Your task to perform on an android device: Open calendar and show me the fourth week of next month Image 0: 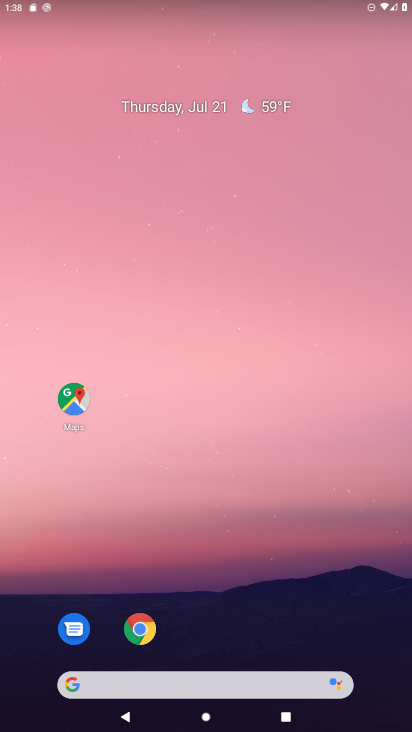
Step 0: drag from (384, 671) to (353, 40)
Your task to perform on an android device: Open calendar and show me the fourth week of next month Image 1: 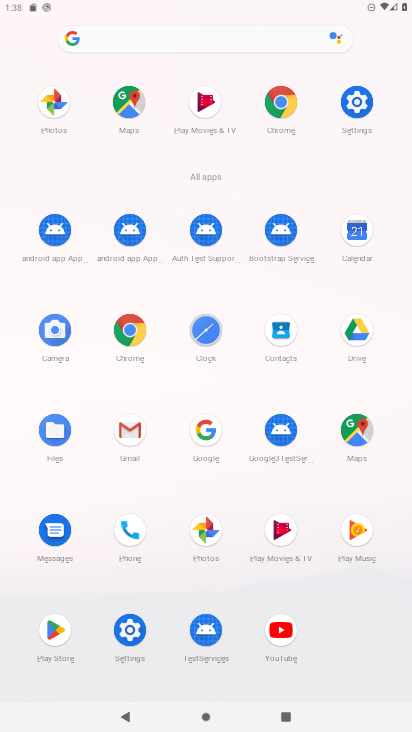
Step 1: click (356, 232)
Your task to perform on an android device: Open calendar and show me the fourth week of next month Image 2: 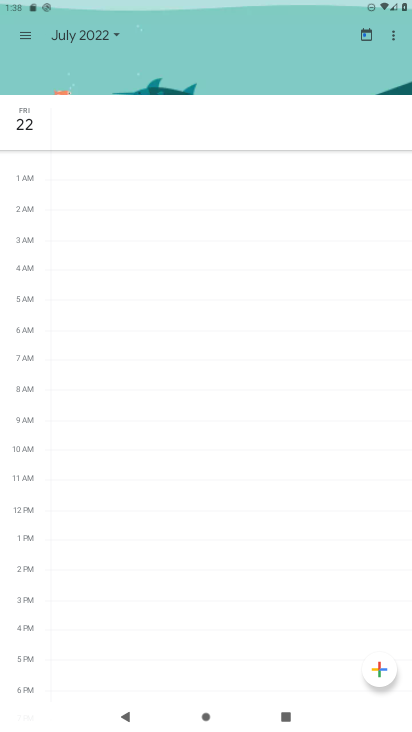
Step 2: click (19, 33)
Your task to perform on an android device: Open calendar and show me the fourth week of next month Image 3: 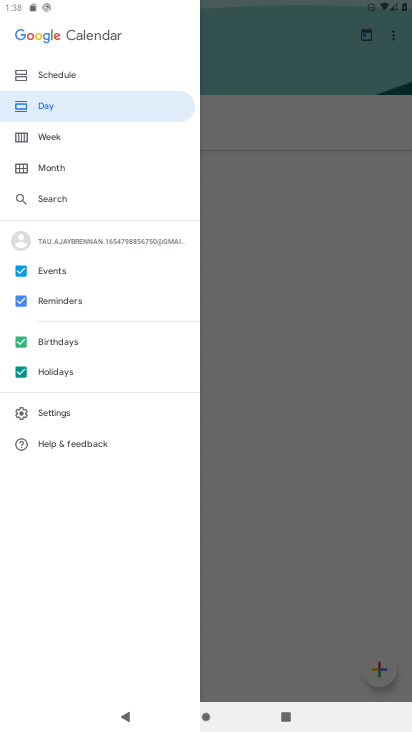
Step 3: click (44, 136)
Your task to perform on an android device: Open calendar and show me the fourth week of next month Image 4: 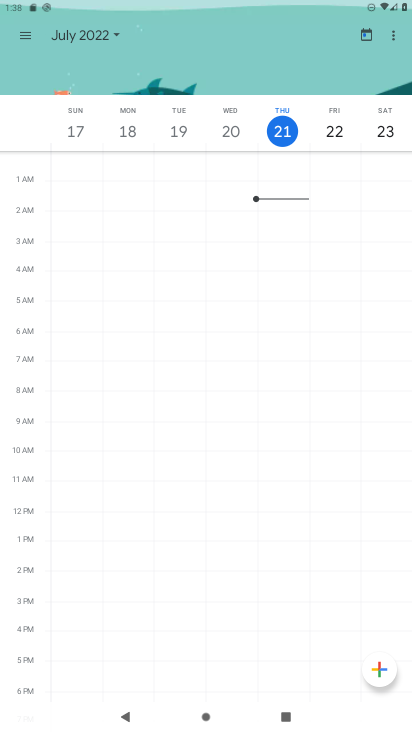
Step 4: click (109, 31)
Your task to perform on an android device: Open calendar and show me the fourth week of next month Image 5: 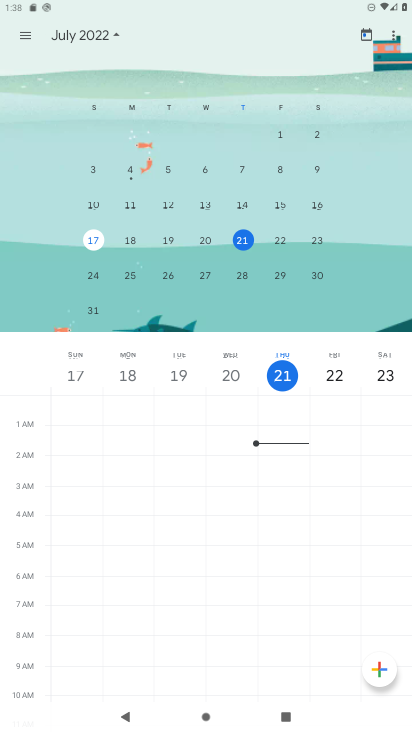
Step 5: drag from (325, 255) to (58, 265)
Your task to perform on an android device: Open calendar and show me the fourth week of next month Image 6: 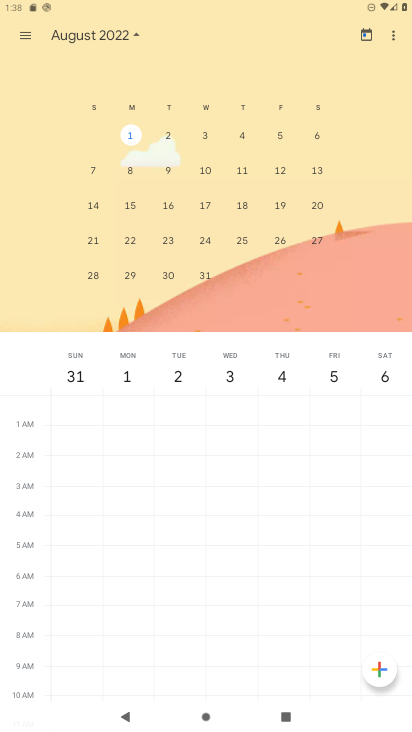
Step 6: click (92, 273)
Your task to perform on an android device: Open calendar and show me the fourth week of next month Image 7: 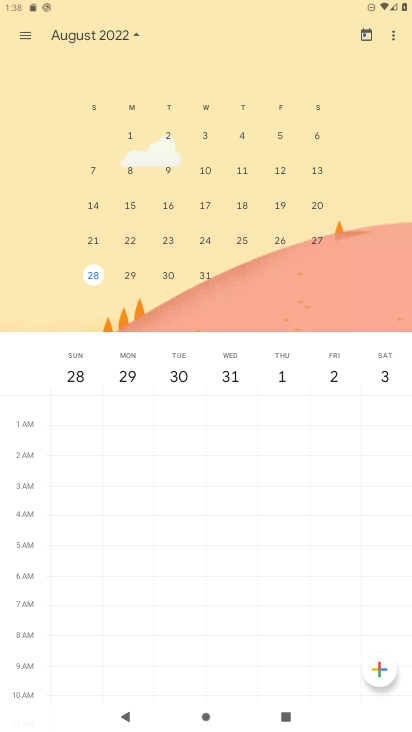
Step 7: task complete